Your task to perform on an android device: toggle improve location accuracy Image 0: 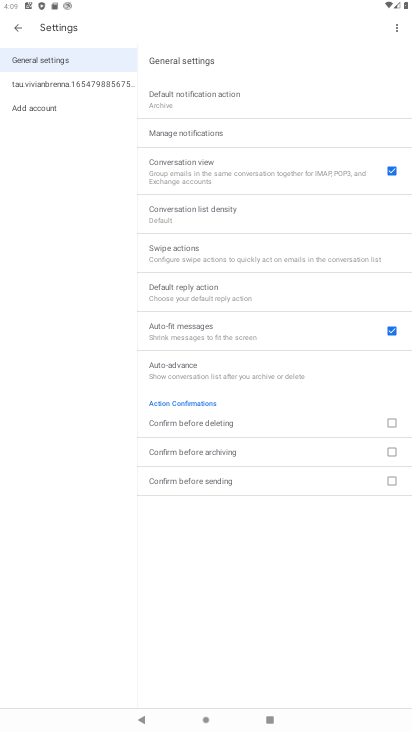
Step 0: press home button
Your task to perform on an android device: toggle improve location accuracy Image 1: 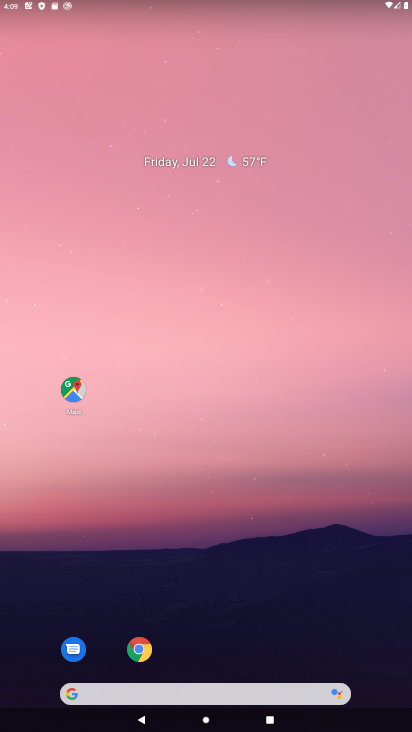
Step 1: drag from (37, 684) to (205, 243)
Your task to perform on an android device: toggle improve location accuracy Image 2: 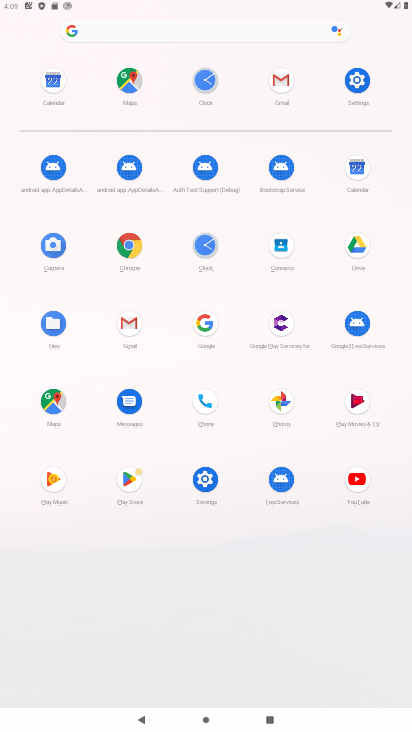
Step 2: click (196, 489)
Your task to perform on an android device: toggle improve location accuracy Image 3: 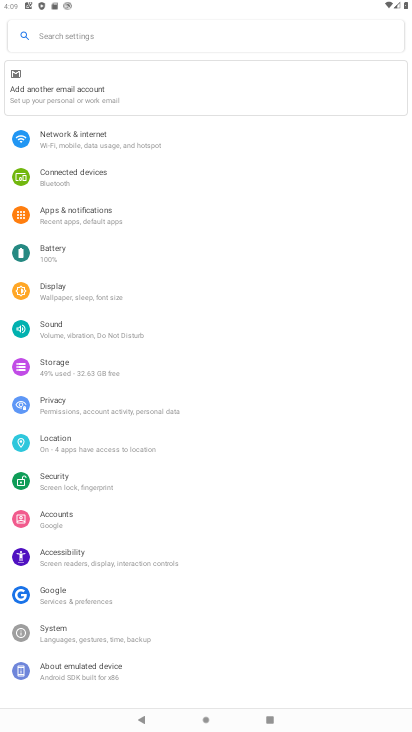
Step 3: click (48, 434)
Your task to perform on an android device: toggle improve location accuracy Image 4: 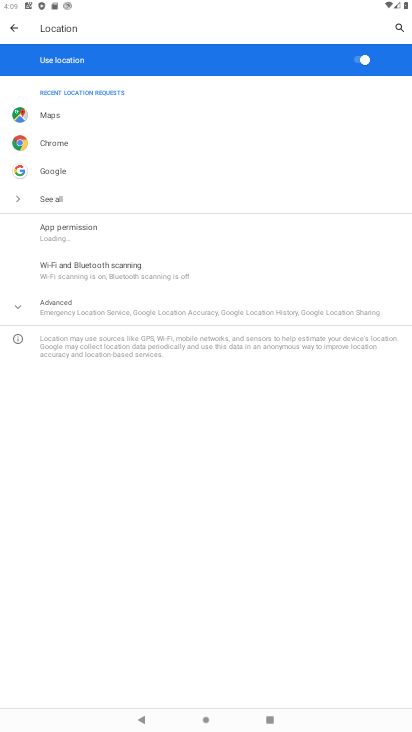
Step 4: click (51, 304)
Your task to perform on an android device: toggle improve location accuracy Image 5: 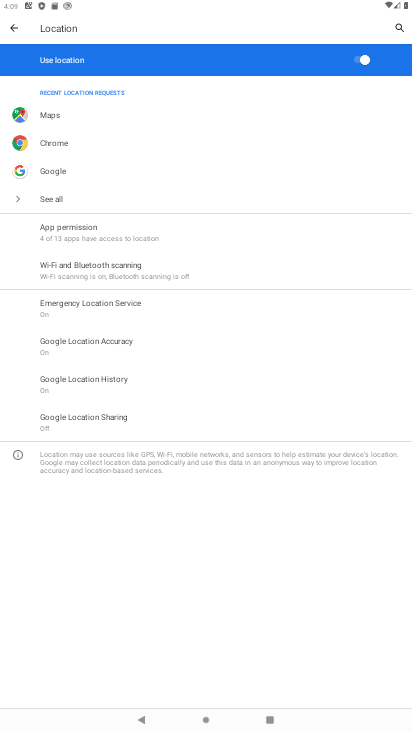
Step 5: task complete